Your task to perform on an android device: Open CNN.com Image 0: 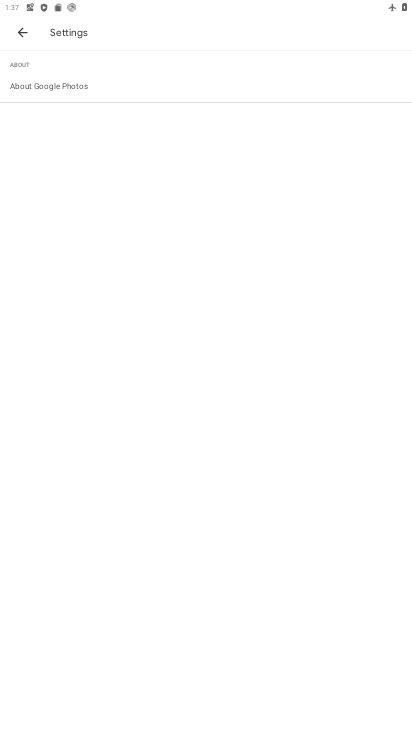
Step 0: press home button
Your task to perform on an android device: Open CNN.com Image 1: 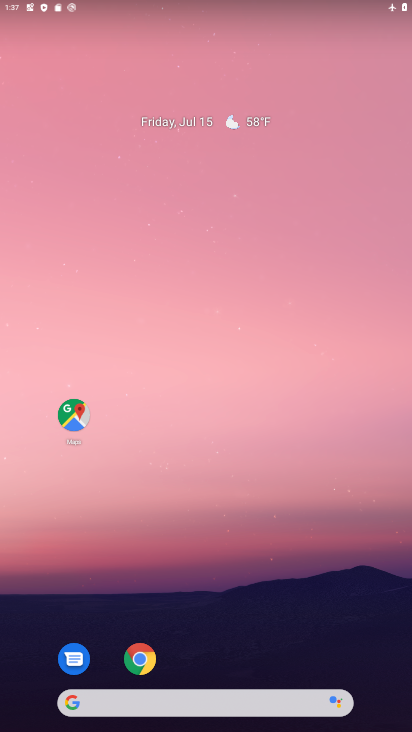
Step 1: click (139, 657)
Your task to perform on an android device: Open CNN.com Image 2: 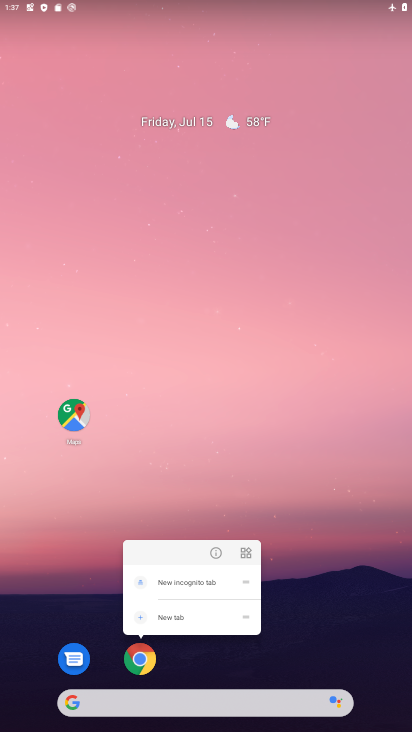
Step 2: click (143, 654)
Your task to perform on an android device: Open CNN.com Image 3: 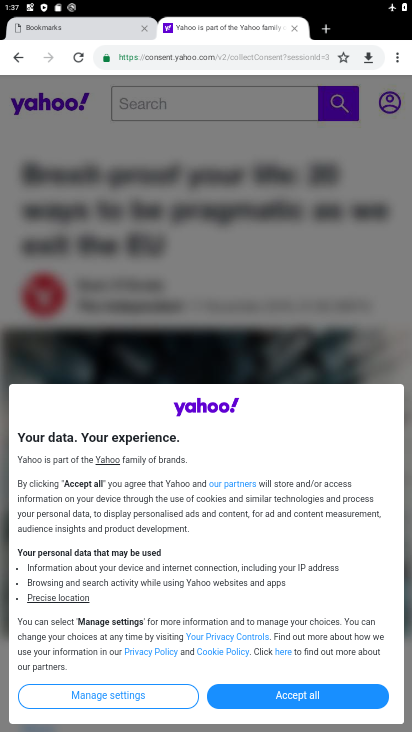
Step 3: click (208, 51)
Your task to perform on an android device: Open CNN.com Image 4: 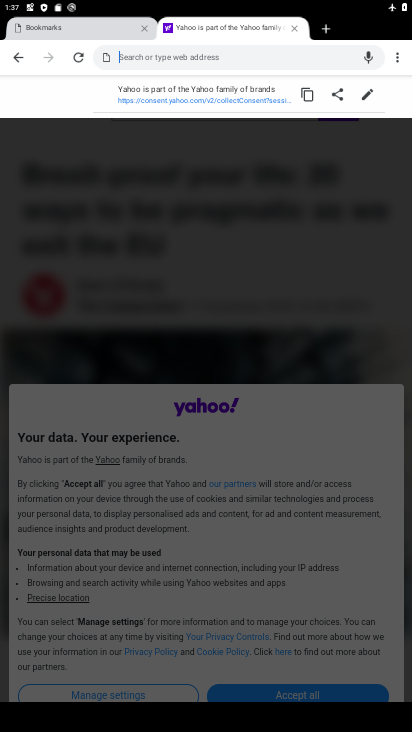
Step 4: type "cnn.com"
Your task to perform on an android device: Open CNN.com Image 5: 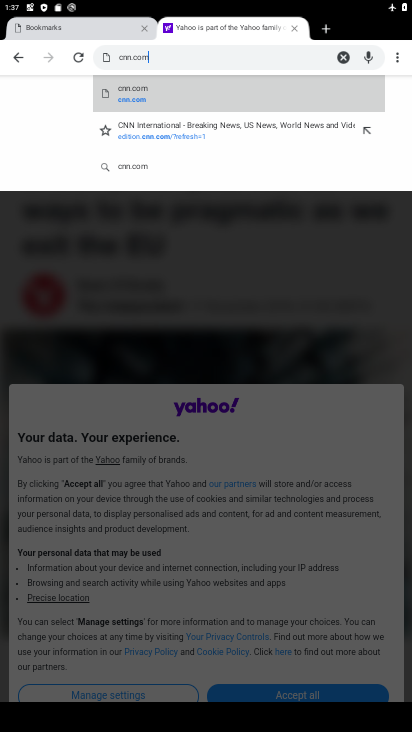
Step 5: click (228, 93)
Your task to perform on an android device: Open CNN.com Image 6: 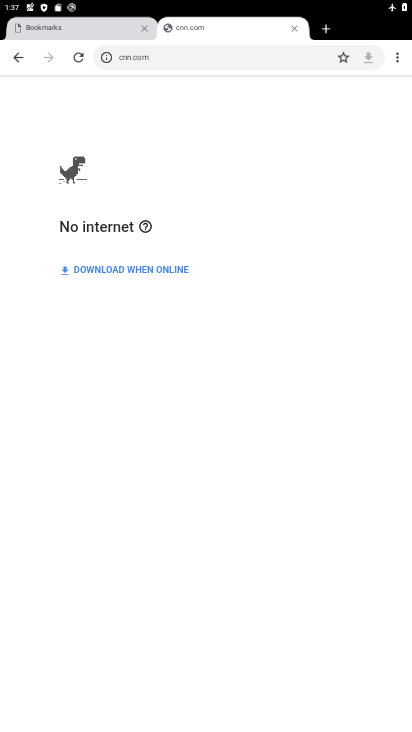
Step 6: task complete